Your task to perform on an android device: change notifications settings Image 0: 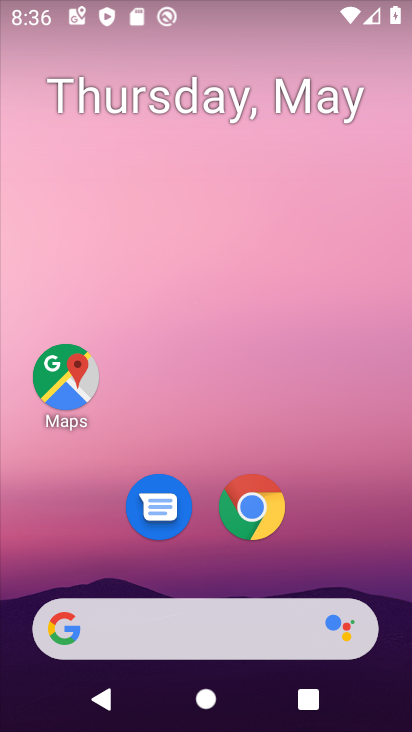
Step 0: drag from (364, 562) to (357, 147)
Your task to perform on an android device: change notifications settings Image 1: 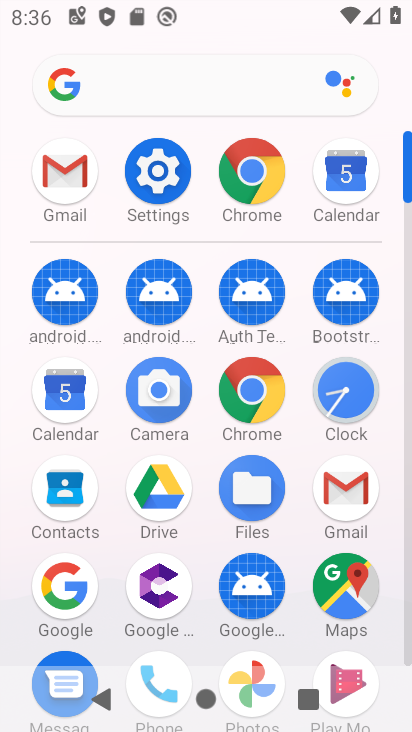
Step 1: click (172, 185)
Your task to perform on an android device: change notifications settings Image 2: 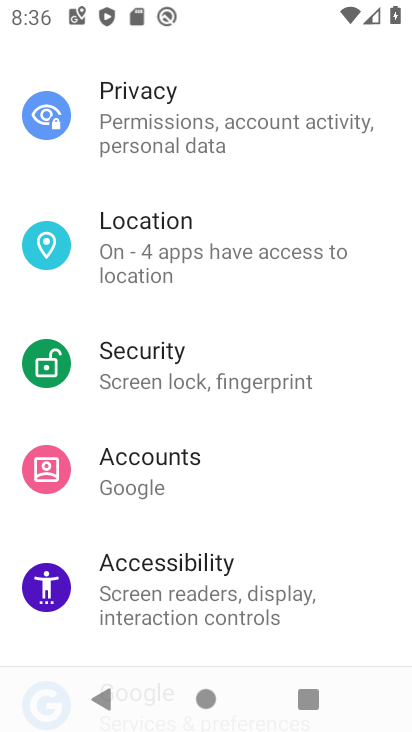
Step 2: drag from (326, 174) to (319, 519)
Your task to perform on an android device: change notifications settings Image 3: 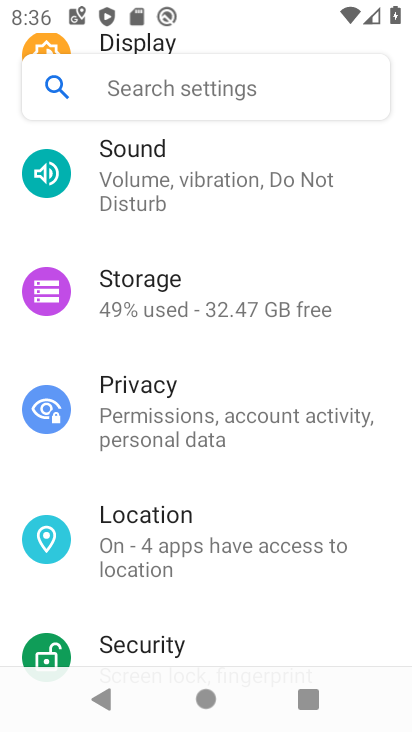
Step 3: drag from (321, 227) to (342, 542)
Your task to perform on an android device: change notifications settings Image 4: 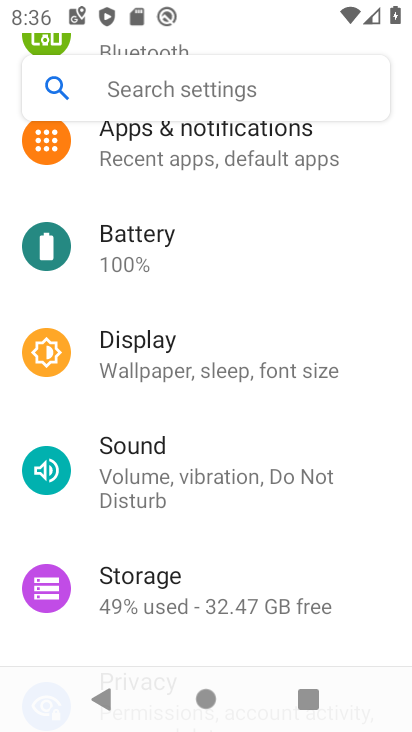
Step 4: drag from (325, 256) to (300, 510)
Your task to perform on an android device: change notifications settings Image 5: 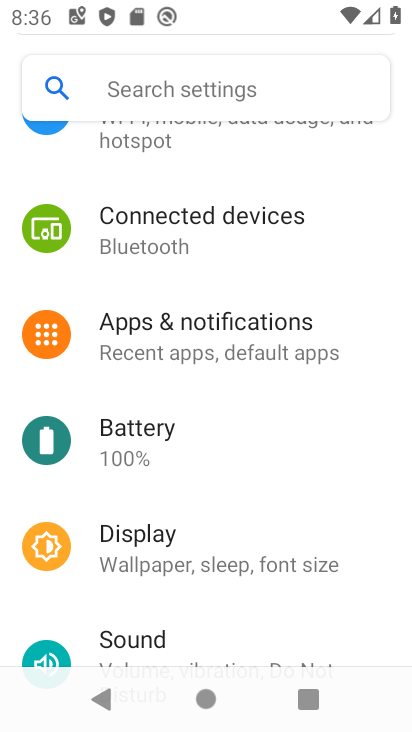
Step 5: click (279, 317)
Your task to perform on an android device: change notifications settings Image 6: 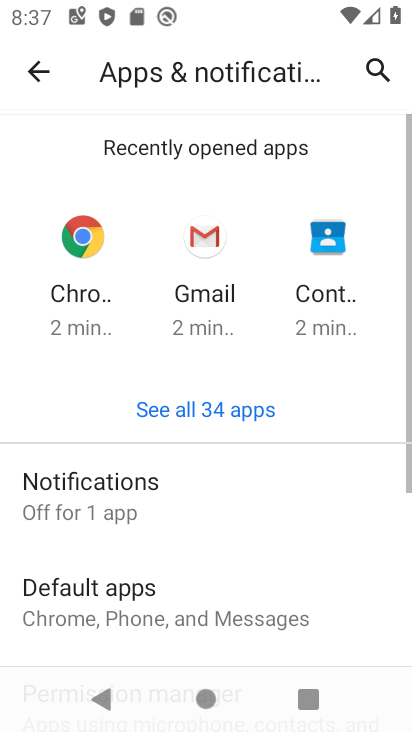
Step 6: click (103, 495)
Your task to perform on an android device: change notifications settings Image 7: 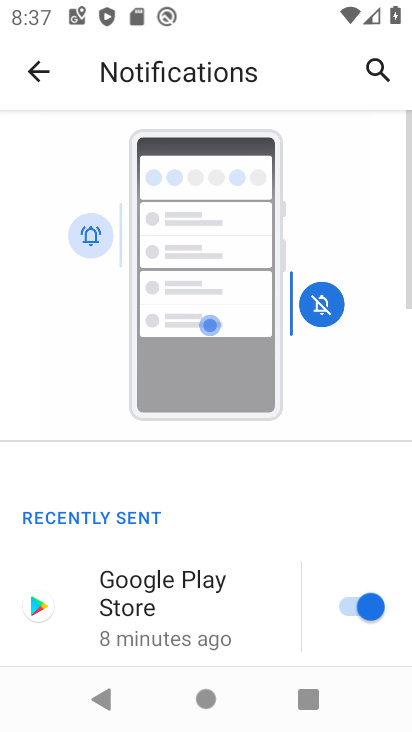
Step 7: drag from (206, 532) to (295, 189)
Your task to perform on an android device: change notifications settings Image 8: 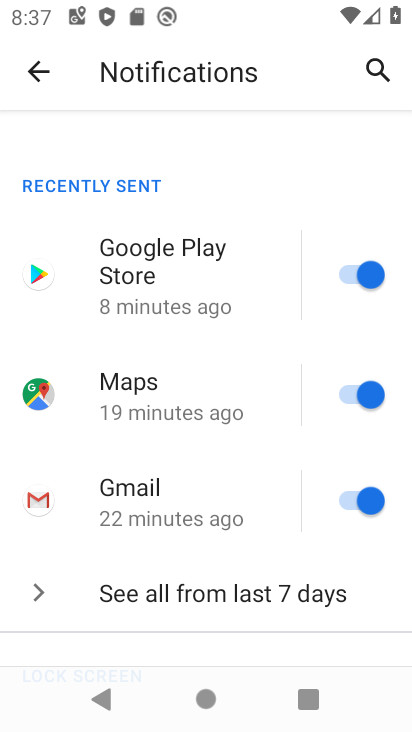
Step 8: drag from (185, 632) to (245, 364)
Your task to perform on an android device: change notifications settings Image 9: 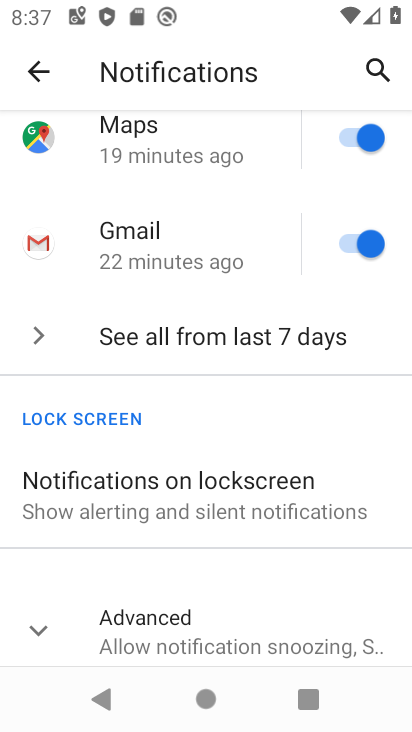
Step 9: click (352, 248)
Your task to perform on an android device: change notifications settings Image 10: 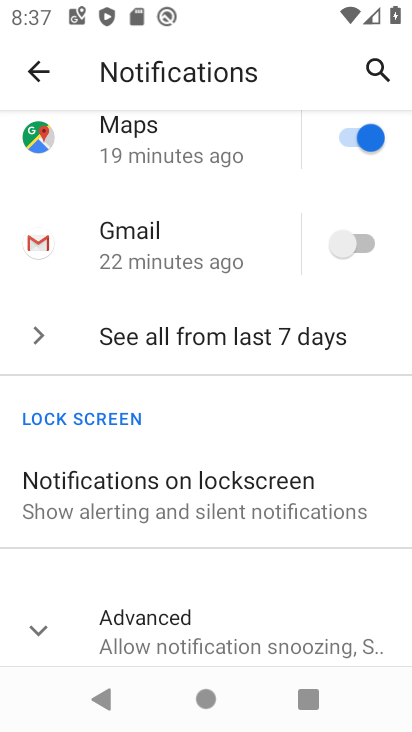
Step 10: task complete